Your task to perform on an android device: Go to internet settings Image 0: 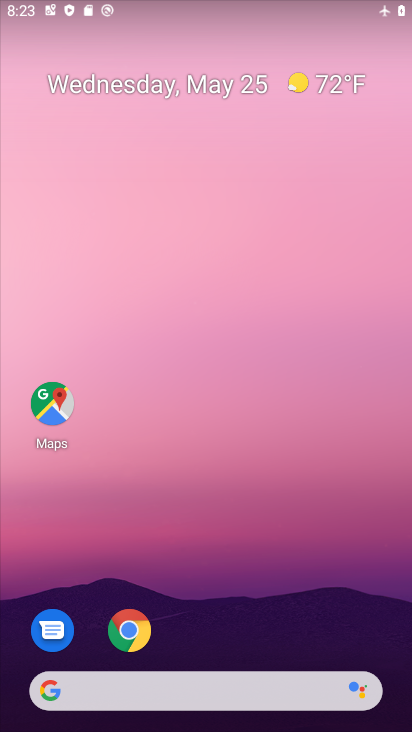
Step 0: drag from (243, 638) to (241, 230)
Your task to perform on an android device: Go to internet settings Image 1: 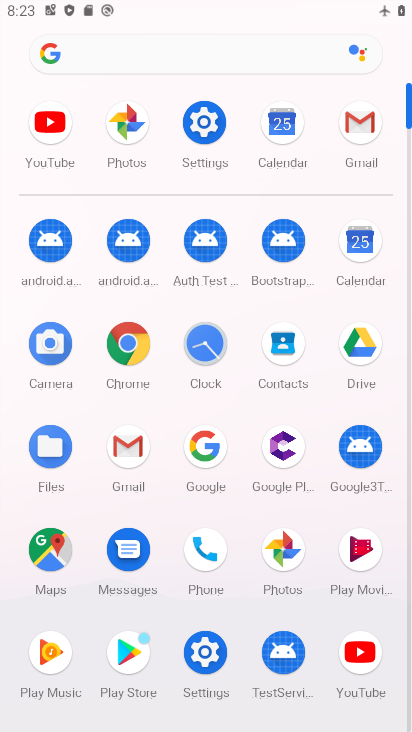
Step 1: click (212, 152)
Your task to perform on an android device: Go to internet settings Image 2: 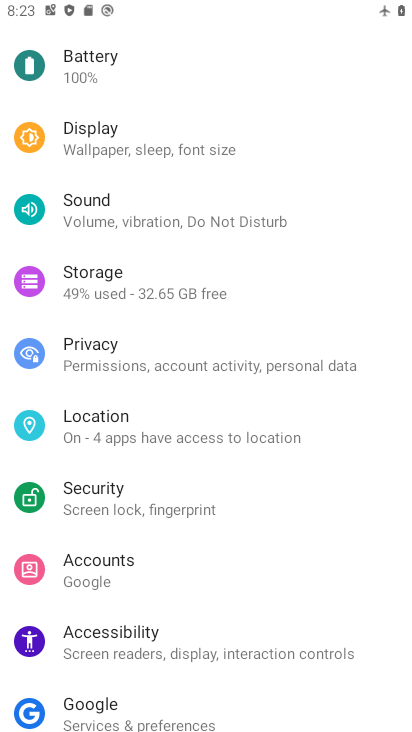
Step 2: drag from (214, 230) to (214, 536)
Your task to perform on an android device: Go to internet settings Image 3: 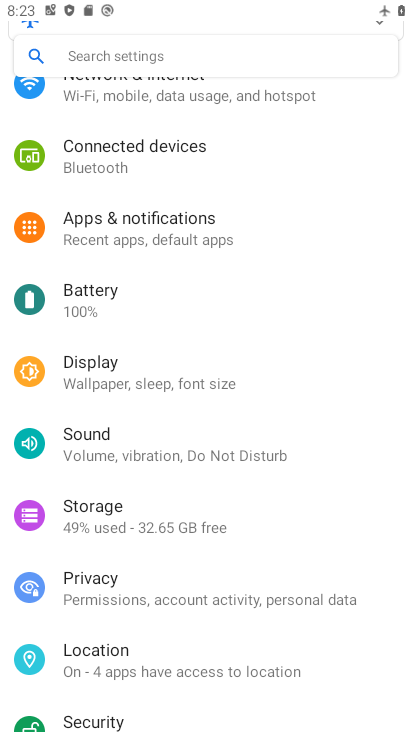
Step 3: drag from (153, 157) to (188, 528)
Your task to perform on an android device: Go to internet settings Image 4: 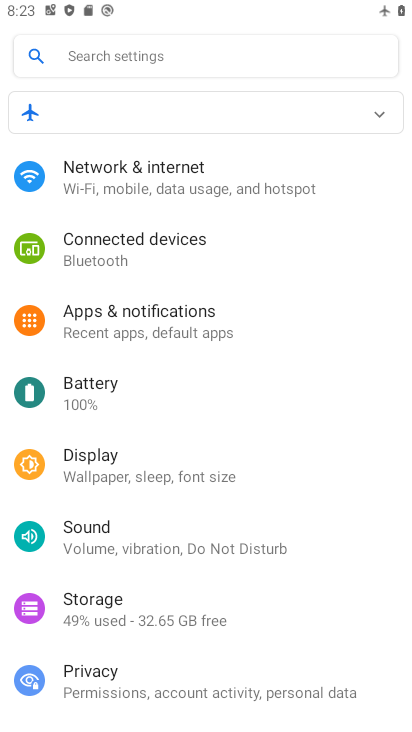
Step 4: click (202, 179)
Your task to perform on an android device: Go to internet settings Image 5: 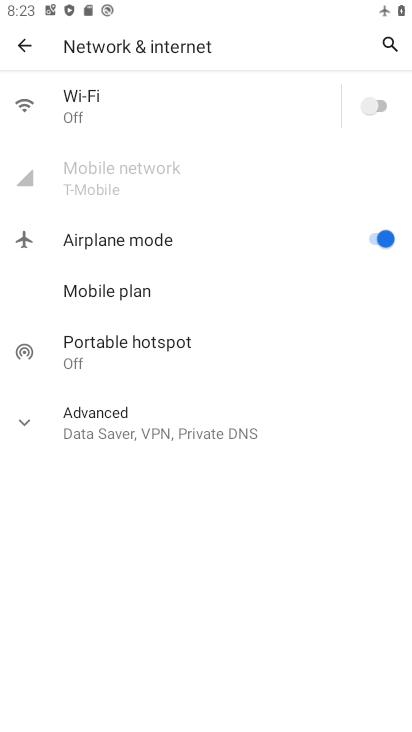
Step 5: task complete